Your task to perform on an android device: Do I have any events today? Image 0: 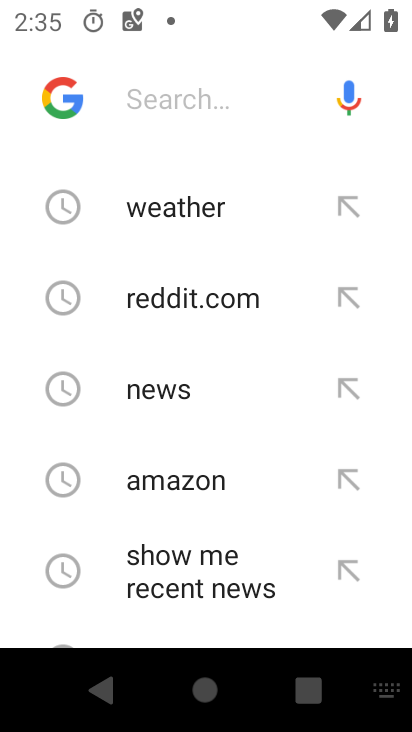
Step 0: press home button
Your task to perform on an android device: Do I have any events today? Image 1: 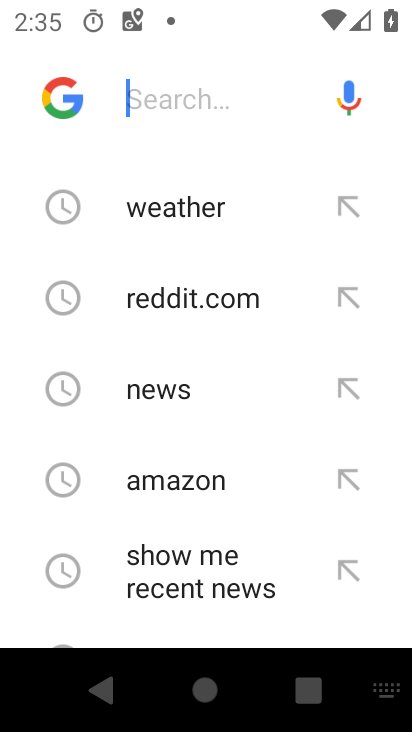
Step 1: press home button
Your task to perform on an android device: Do I have any events today? Image 2: 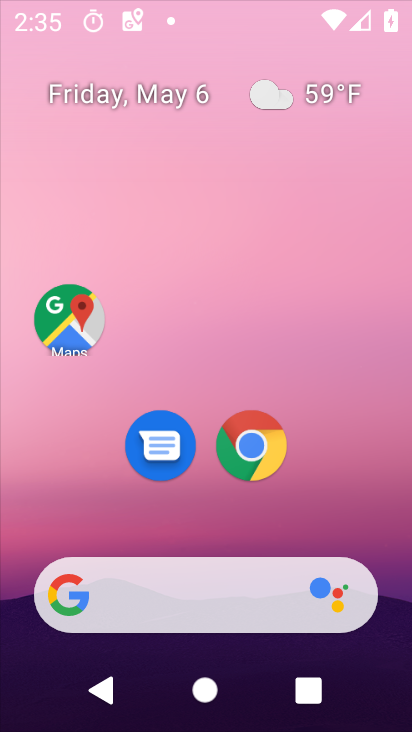
Step 2: press home button
Your task to perform on an android device: Do I have any events today? Image 3: 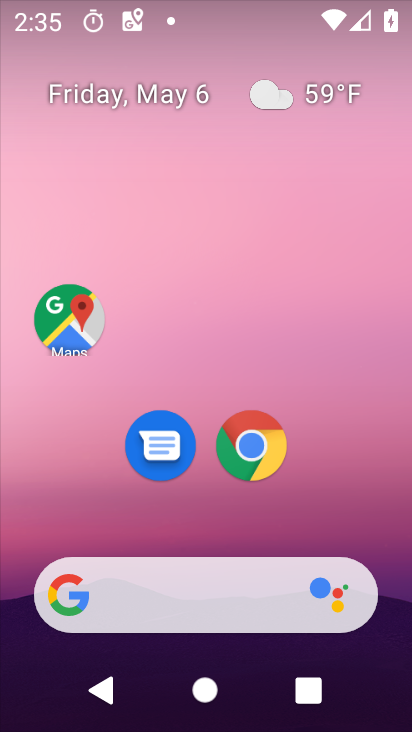
Step 3: press home button
Your task to perform on an android device: Do I have any events today? Image 4: 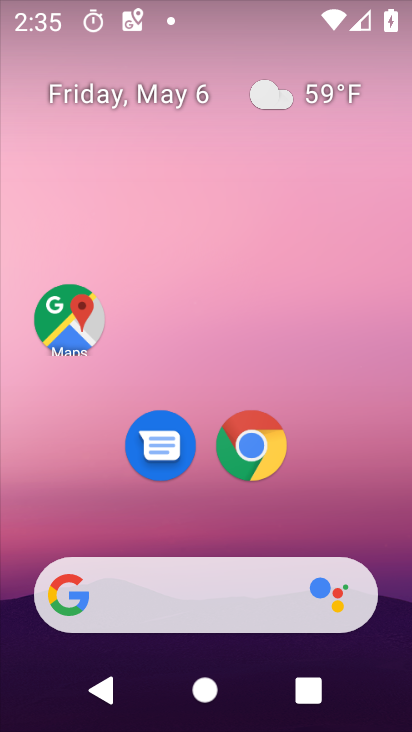
Step 4: drag from (360, 518) to (203, 6)
Your task to perform on an android device: Do I have any events today? Image 5: 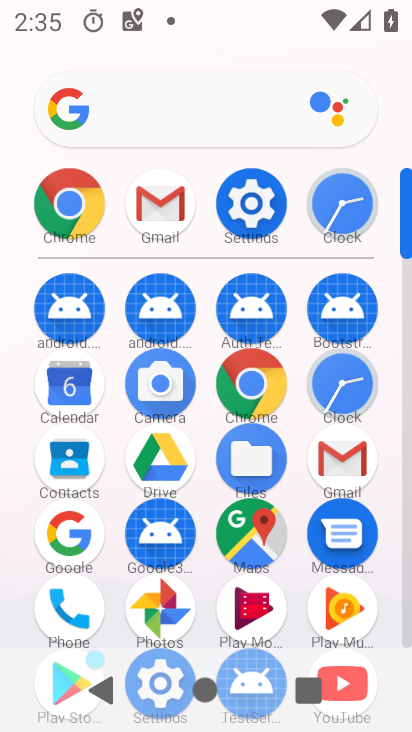
Step 5: click (83, 396)
Your task to perform on an android device: Do I have any events today? Image 6: 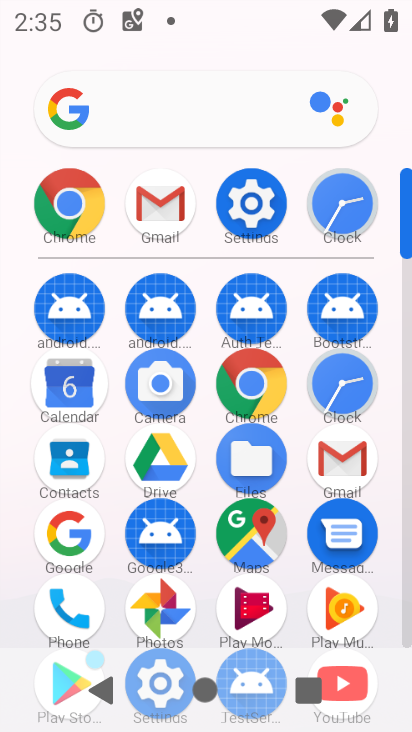
Step 6: click (82, 394)
Your task to perform on an android device: Do I have any events today? Image 7: 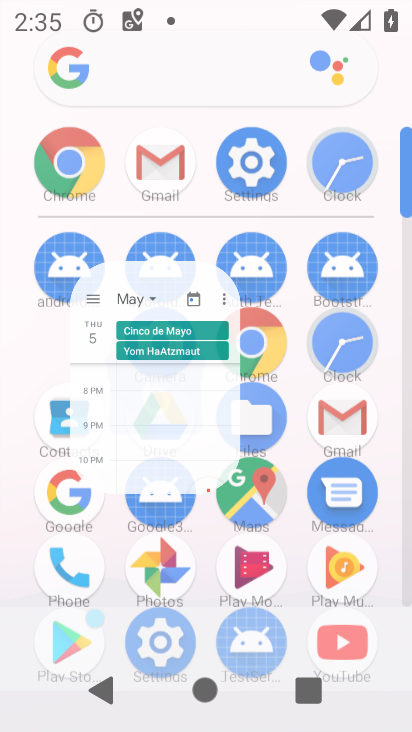
Step 7: click (84, 395)
Your task to perform on an android device: Do I have any events today? Image 8: 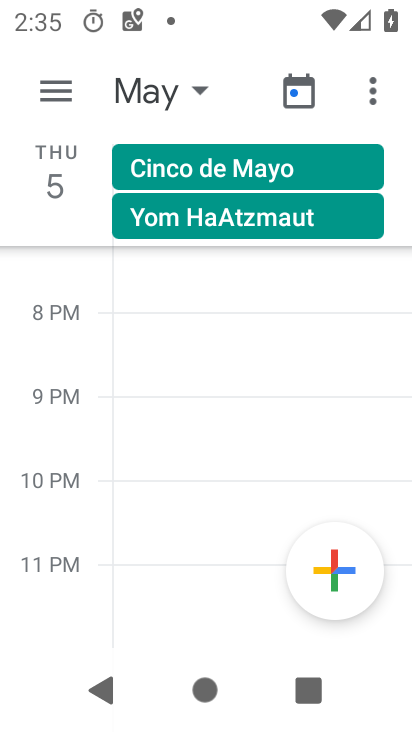
Step 8: click (84, 395)
Your task to perform on an android device: Do I have any events today? Image 9: 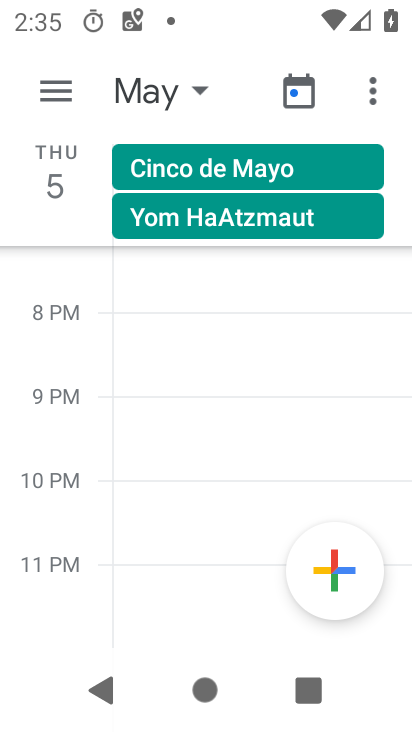
Step 9: click (84, 395)
Your task to perform on an android device: Do I have any events today? Image 10: 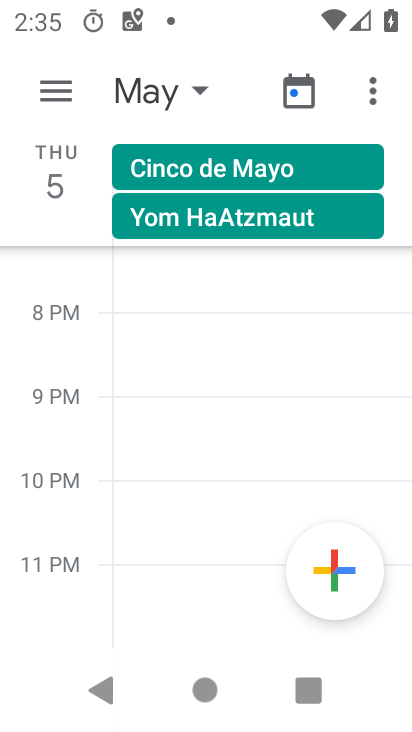
Step 10: drag from (178, 191) to (290, 467)
Your task to perform on an android device: Do I have any events today? Image 11: 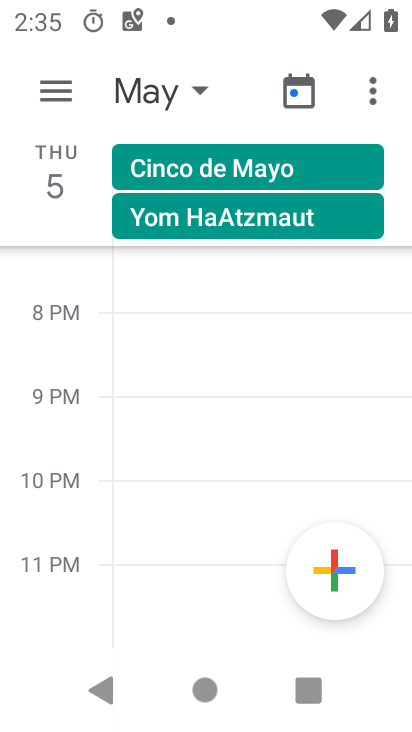
Step 11: drag from (227, 176) to (266, 313)
Your task to perform on an android device: Do I have any events today? Image 12: 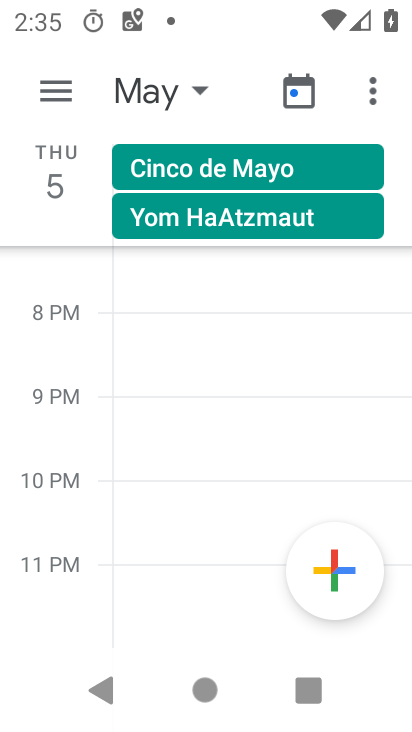
Step 12: drag from (211, 336) to (146, 12)
Your task to perform on an android device: Do I have any events today? Image 13: 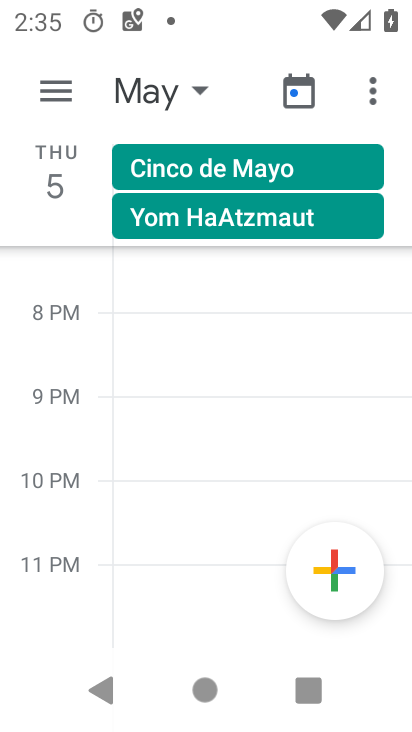
Step 13: drag from (283, 541) to (208, 78)
Your task to perform on an android device: Do I have any events today? Image 14: 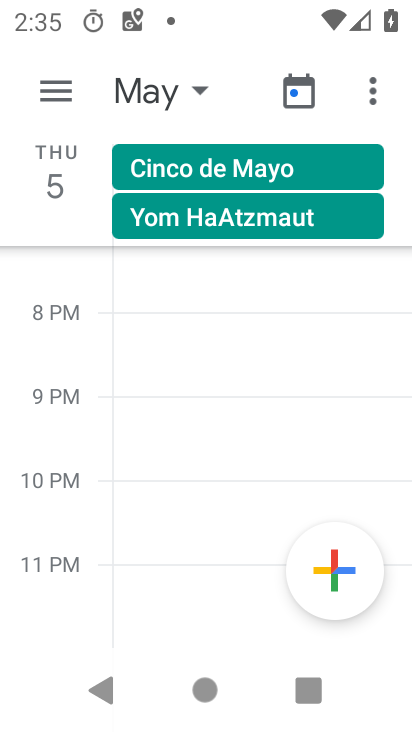
Step 14: drag from (213, 230) to (273, 503)
Your task to perform on an android device: Do I have any events today? Image 15: 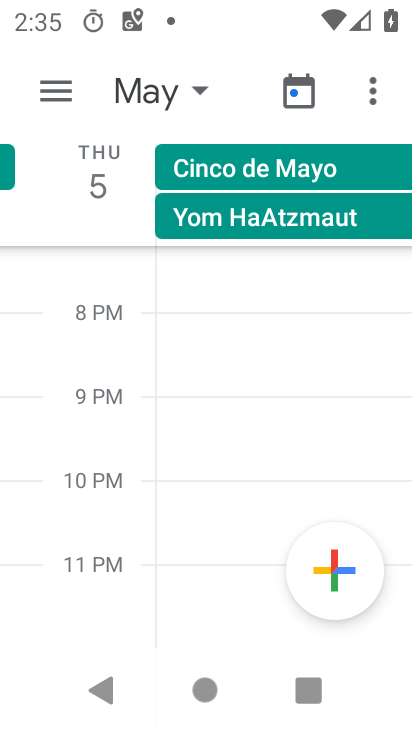
Step 15: drag from (227, 248) to (251, 599)
Your task to perform on an android device: Do I have any events today? Image 16: 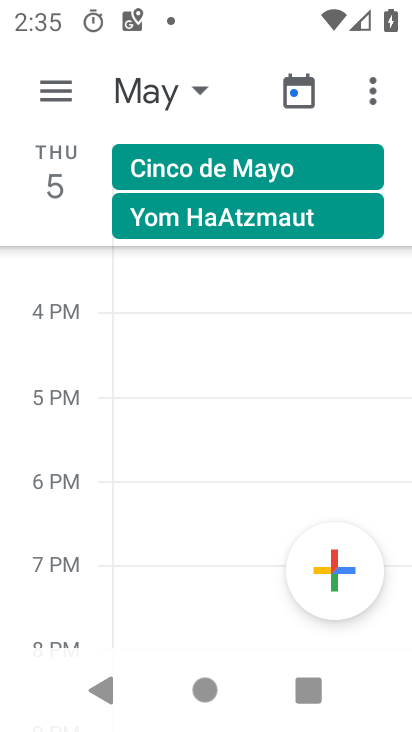
Step 16: drag from (238, 163) to (219, 635)
Your task to perform on an android device: Do I have any events today? Image 17: 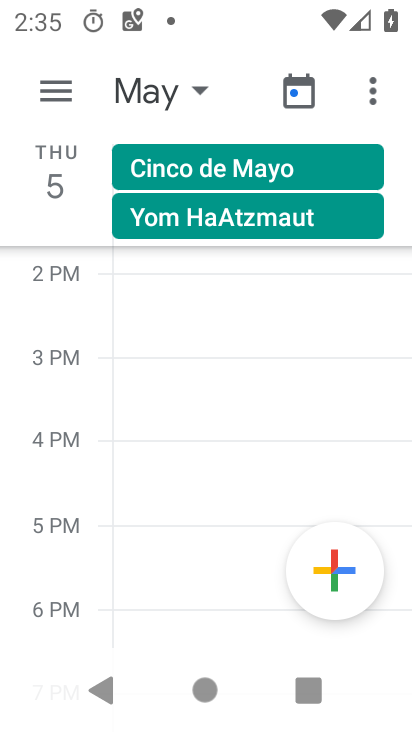
Step 17: drag from (163, 318) to (165, 641)
Your task to perform on an android device: Do I have any events today? Image 18: 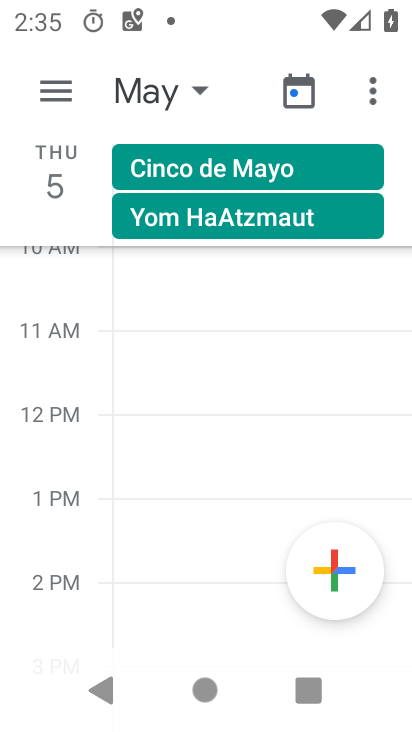
Step 18: click (204, 83)
Your task to perform on an android device: Do I have any events today? Image 19: 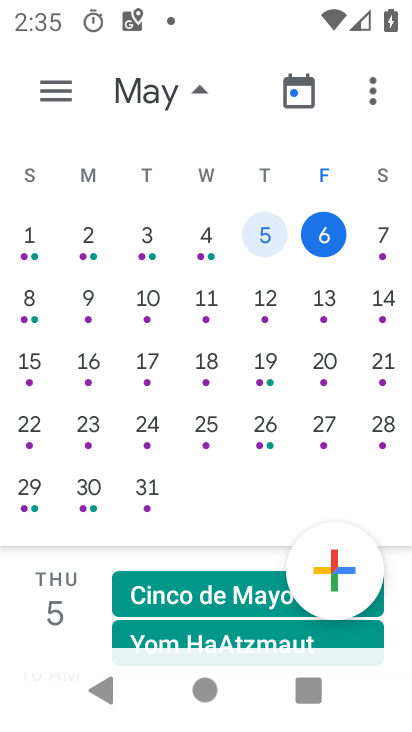
Step 19: task complete